Your task to perform on an android device: toggle improve location accuracy Image 0: 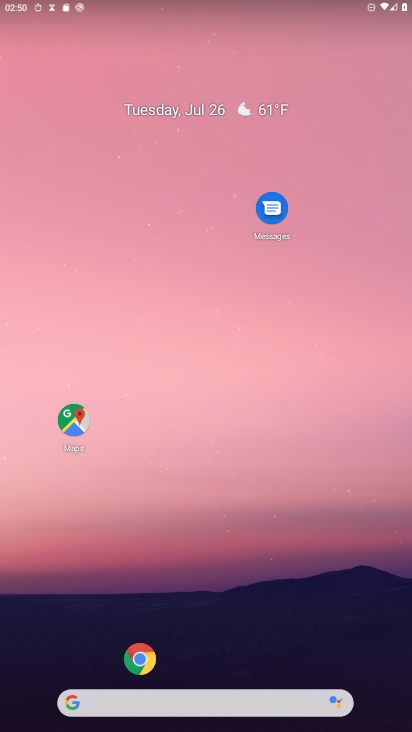
Step 0: click (140, 666)
Your task to perform on an android device: toggle improve location accuracy Image 1: 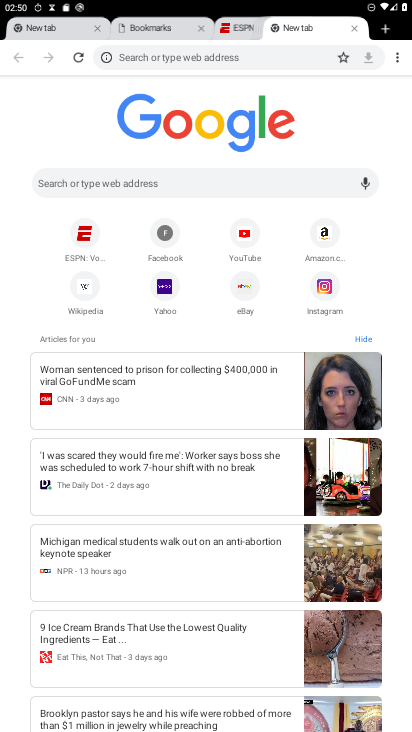
Step 1: press home button
Your task to perform on an android device: toggle improve location accuracy Image 2: 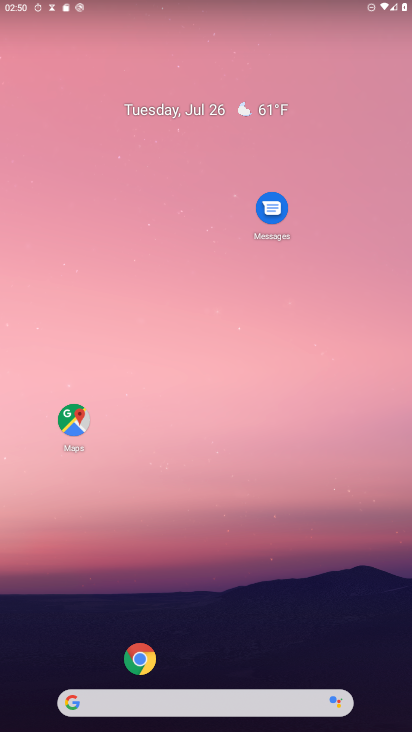
Step 2: drag from (51, 636) to (247, 24)
Your task to perform on an android device: toggle improve location accuracy Image 3: 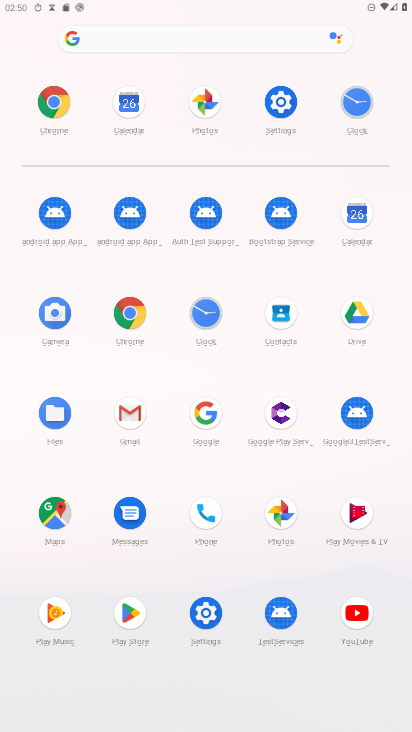
Step 3: click (202, 630)
Your task to perform on an android device: toggle improve location accuracy Image 4: 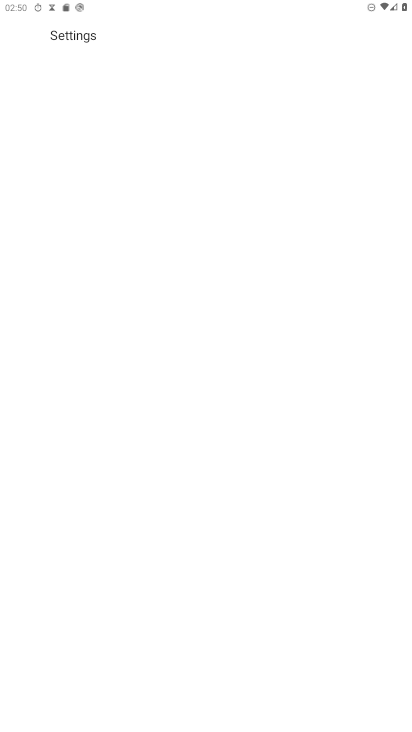
Step 4: click (203, 614)
Your task to perform on an android device: toggle improve location accuracy Image 5: 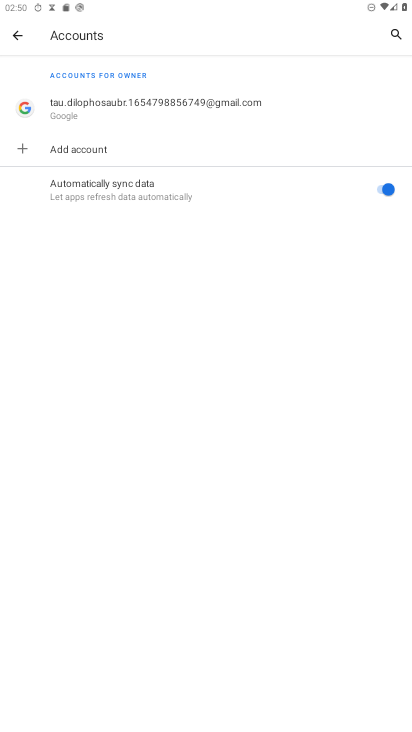
Step 5: click (17, 28)
Your task to perform on an android device: toggle improve location accuracy Image 6: 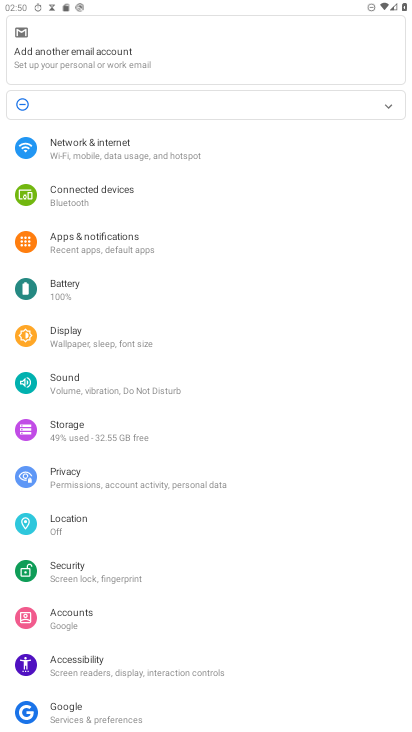
Step 6: click (78, 506)
Your task to perform on an android device: toggle improve location accuracy Image 7: 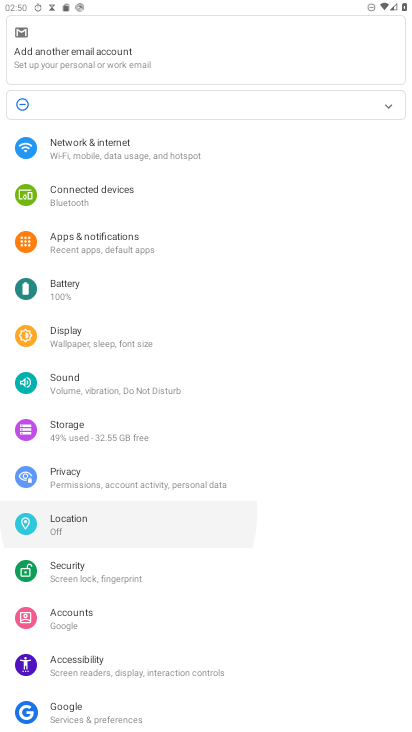
Step 7: click (78, 513)
Your task to perform on an android device: toggle improve location accuracy Image 8: 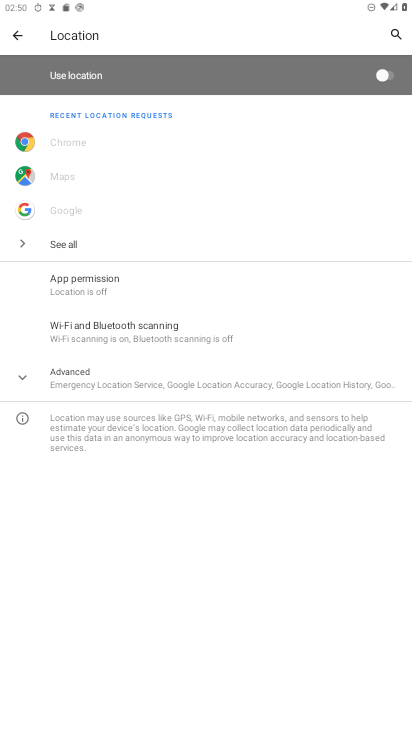
Step 8: click (389, 82)
Your task to perform on an android device: toggle improve location accuracy Image 9: 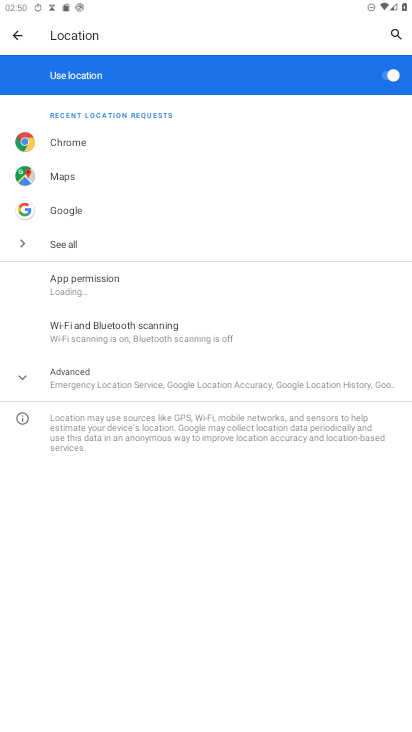
Step 9: task complete